Your task to perform on an android device: toggle notifications settings in the gmail app Image 0: 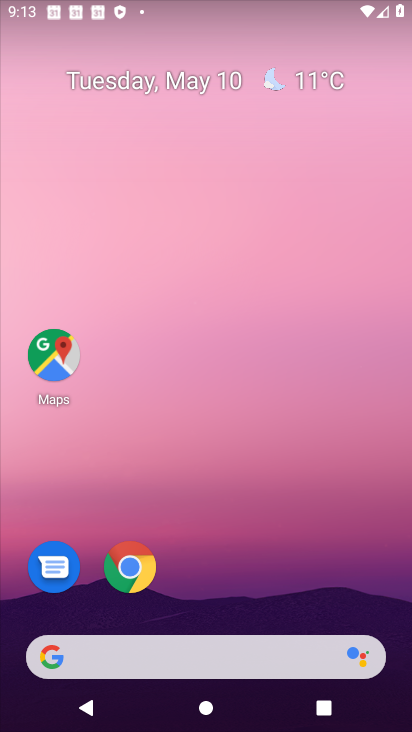
Step 0: drag from (190, 391) to (195, 314)
Your task to perform on an android device: toggle notifications settings in the gmail app Image 1: 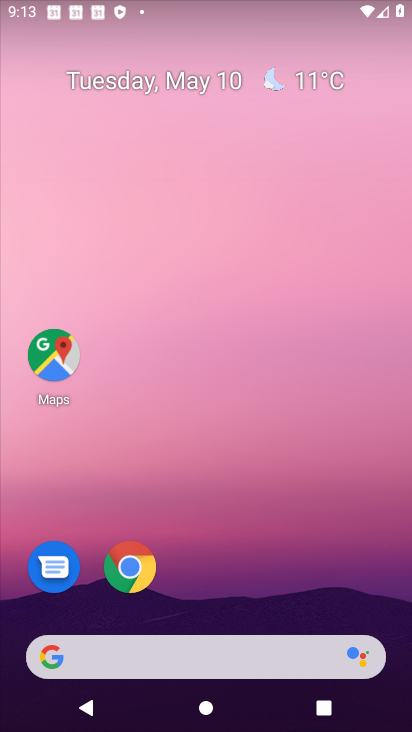
Step 1: click (234, 231)
Your task to perform on an android device: toggle notifications settings in the gmail app Image 2: 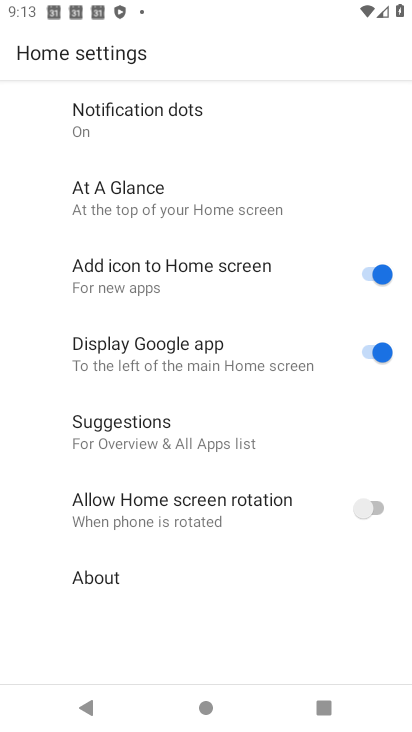
Step 2: press back button
Your task to perform on an android device: toggle notifications settings in the gmail app Image 3: 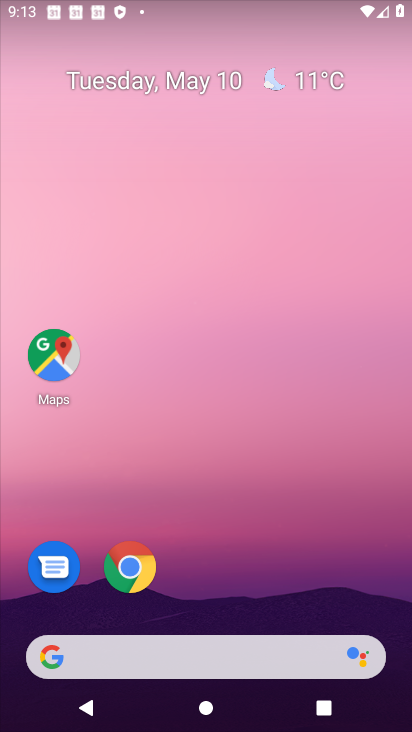
Step 3: drag from (172, 638) to (211, 335)
Your task to perform on an android device: toggle notifications settings in the gmail app Image 4: 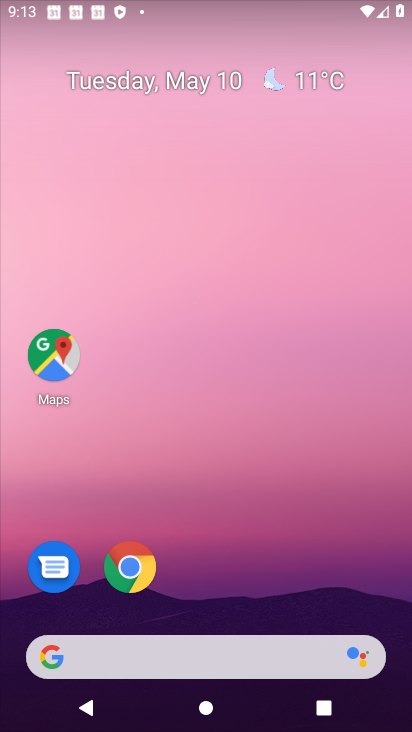
Step 4: drag from (225, 638) to (257, 170)
Your task to perform on an android device: toggle notifications settings in the gmail app Image 5: 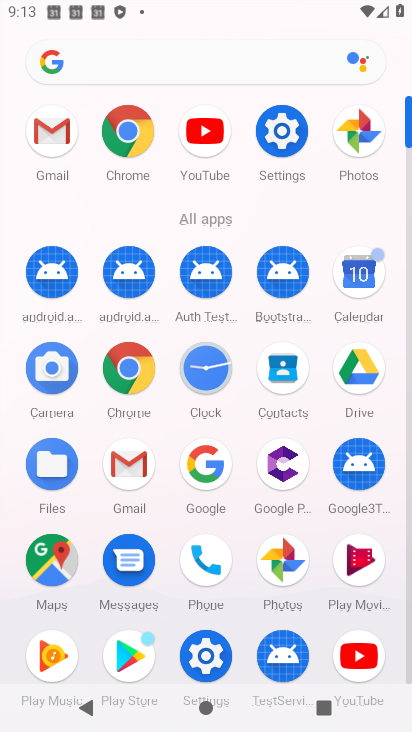
Step 5: click (124, 477)
Your task to perform on an android device: toggle notifications settings in the gmail app Image 6: 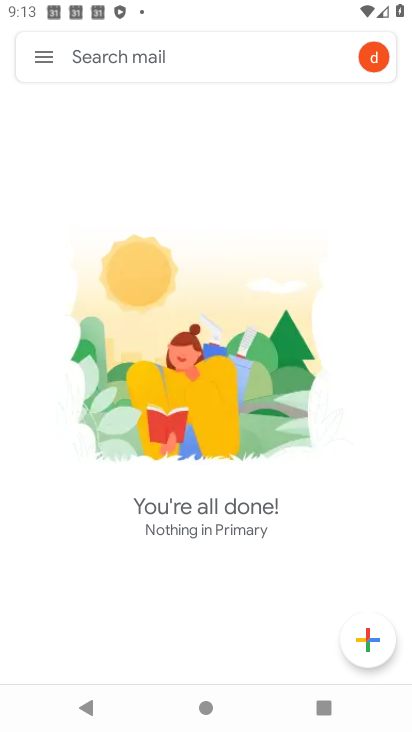
Step 6: click (51, 57)
Your task to perform on an android device: toggle notifications settings in the gmail app Image 7: 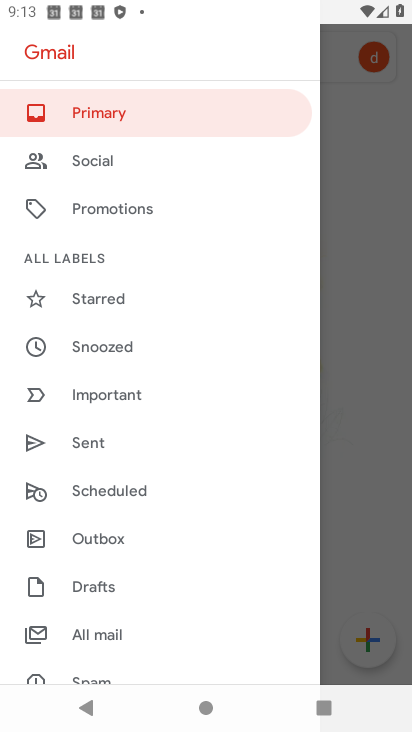
Step 7: drag from (105, 656) to (168, 263)
Your task to perform on an android device: toggle notifications settings in the gmail app Image 8: 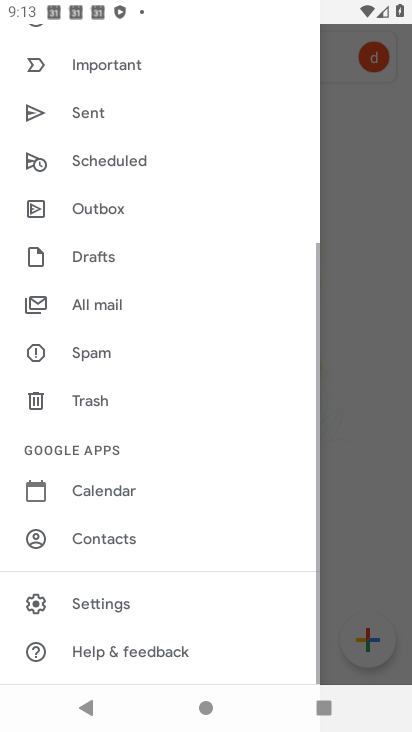
Step 8: click (93, 606)
Your task to perform on an android device: toggle notifications settings in the gmail app Image 9: 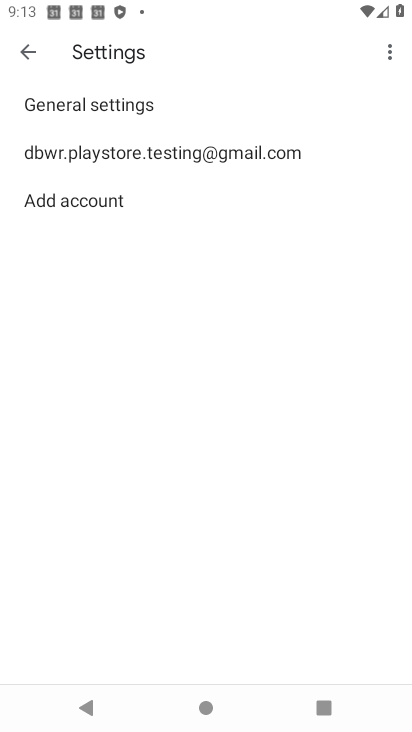
Step 9: click (106, 107)
Your task to perform on an android device: toggle notifications settings in the gmail app Image 10: 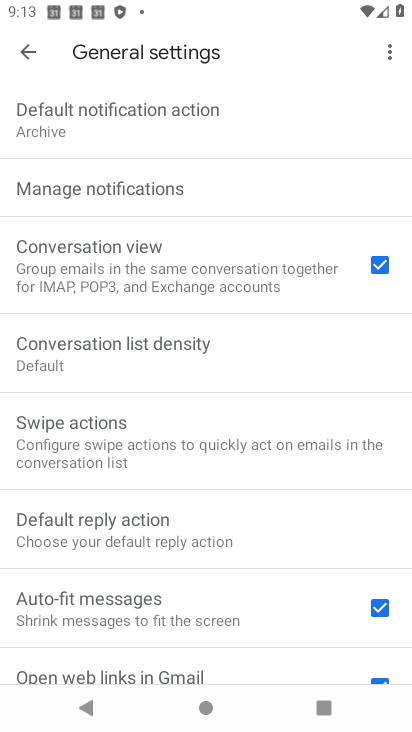
Step 10: click (71, 198)
Your task to perform on an android device: toggle notifications settings in the gmail app Image 11: 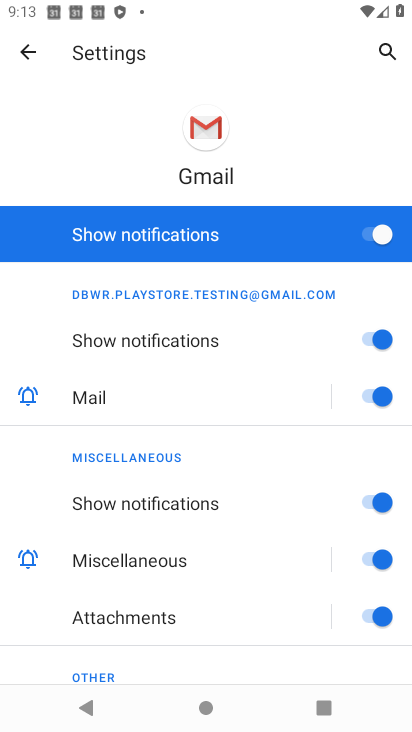
Step 11: click (372, 232)
Your task to perform on an android device: toggle notifications settings in the gmail app Image 12: 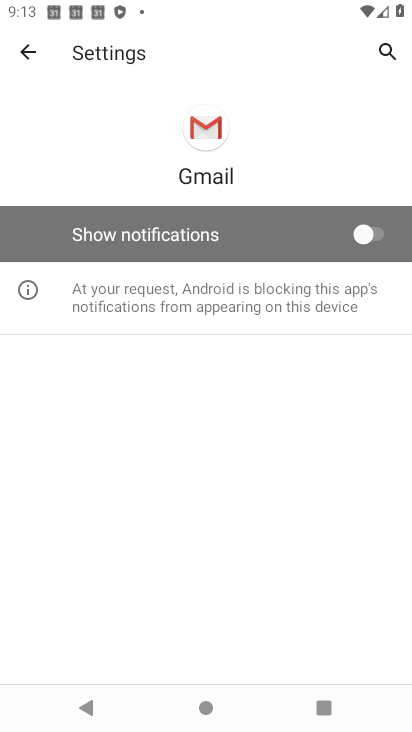
Step 12: task complete